Your task to perform on an android device: Search for seafood restaurants on Google Maps Image 0: 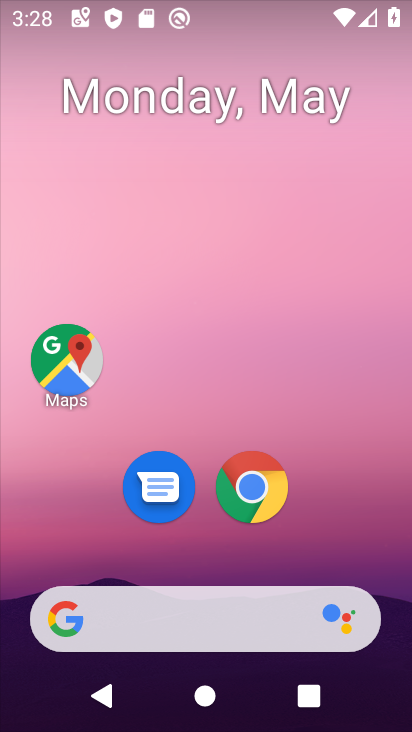
Step 0: drag from (217, 597) to (281, 201)
Your task to perform on an android device: Search for seafood restaurants on Google Maps Image 1: 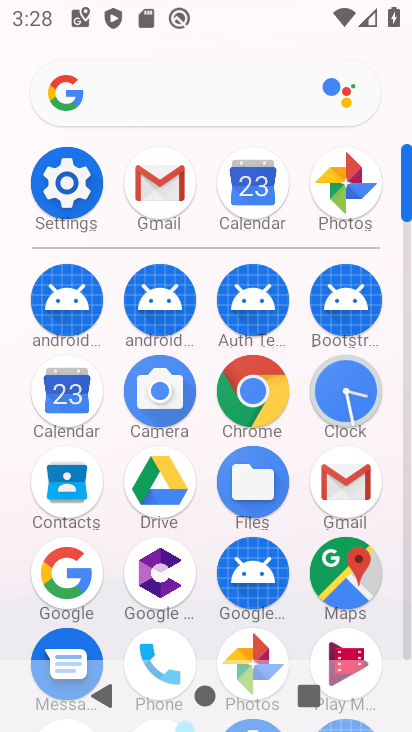
Step 1: click (333, 584)
Your task to perform on an android device: Search for seafood restaurants on Google Maps Image 2: 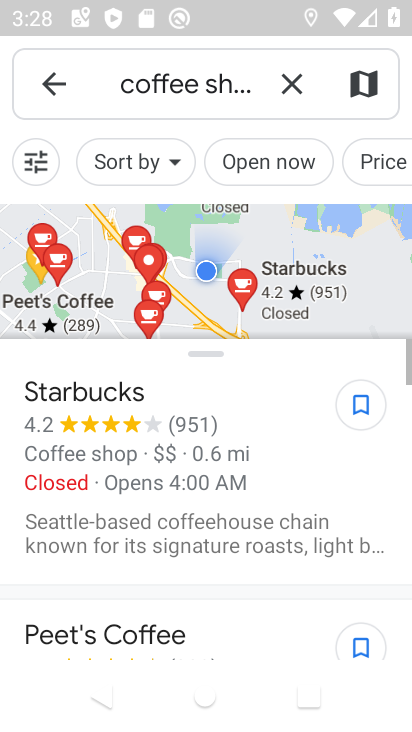
Step 2: click (299, 88)
Your task to perform on an android device: Search for seafood restaurants on Google Maps Image 3: 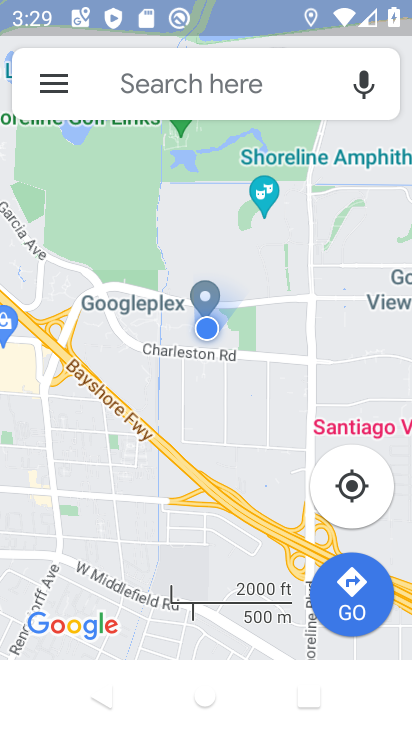
Step 3: click (246, 89)
Your task to perform on an android device: Search for seafood restaurants on Google Maps Image 4: 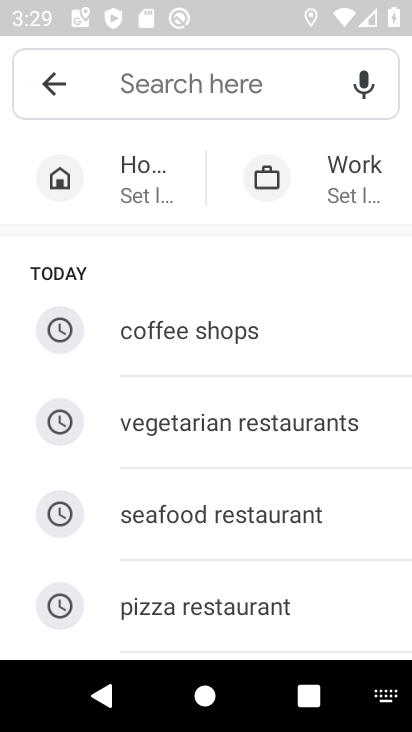
Step 4: click (228, 522)
Your task to perform on an android device: Search for seafood restaurants on Google Maps Image 5: 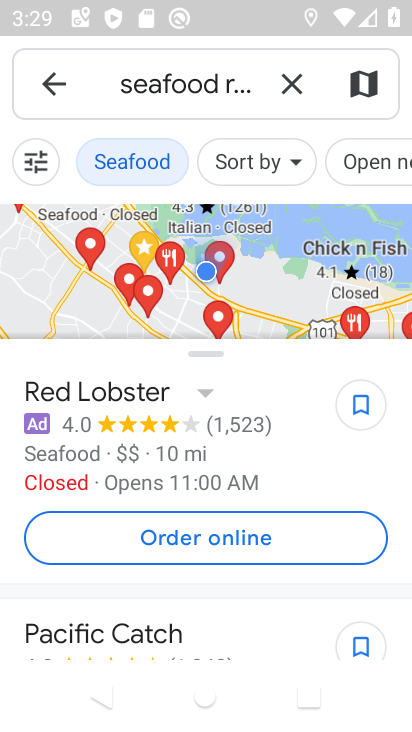
Step 5: task complete